Your task to perform on an android device: Go to Reddit.com Image 0: 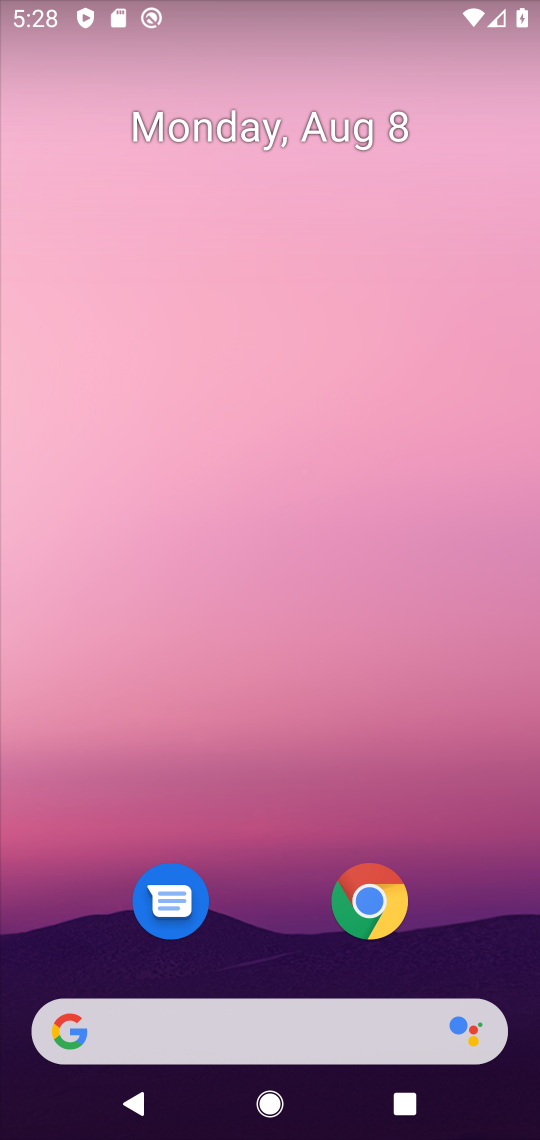
Step 0: click (381, 895)
Your task to perform on an android device: Go to Reddit.com Image 1: 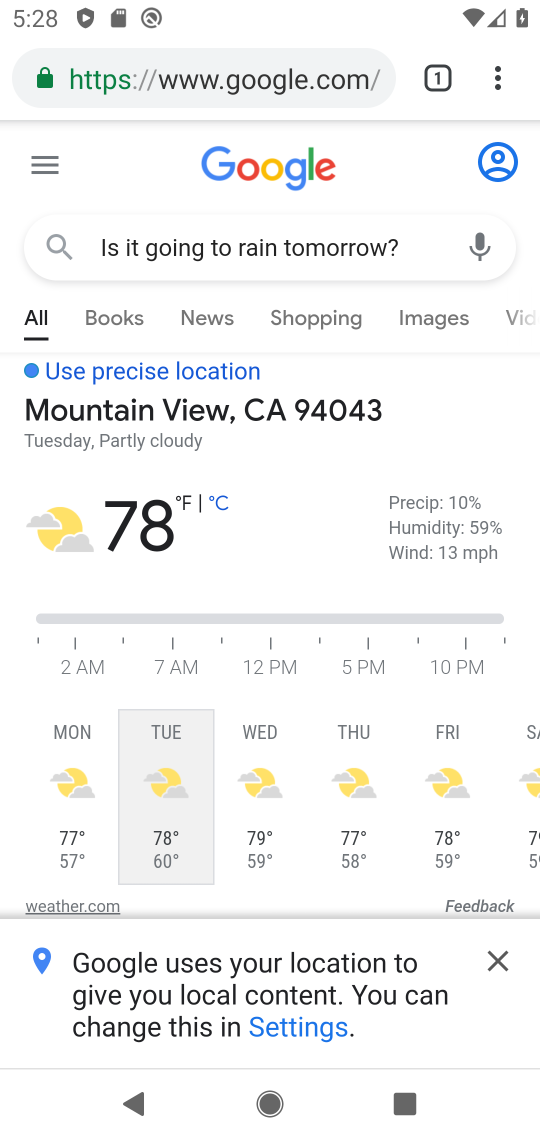
Step 1: click (210, 81)
Your task to perform on an android device: Go to Reddit.com Image 2: 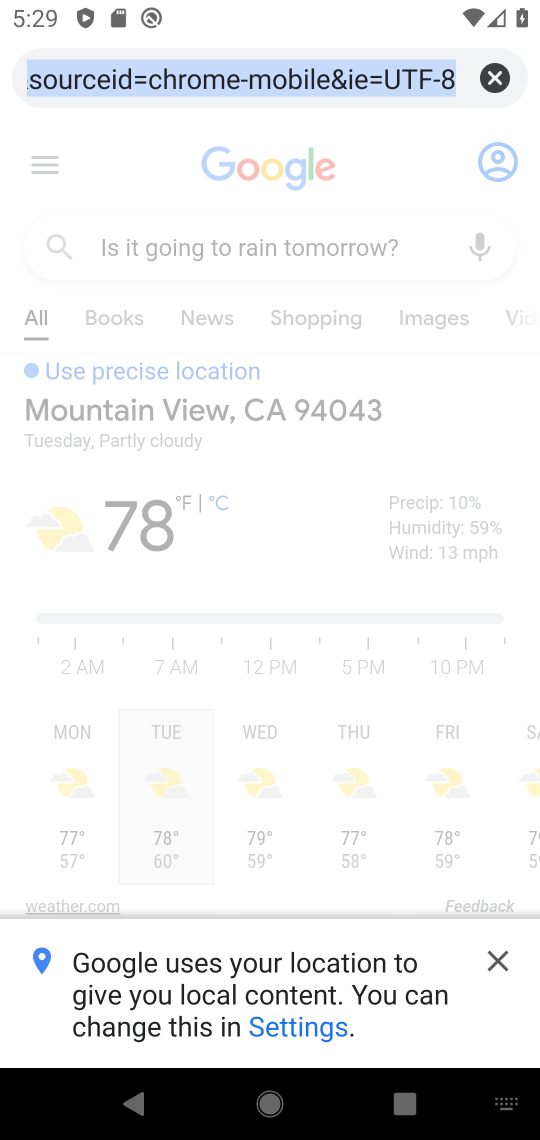
Step 2: type "Reddit.com"
Your task to perform on an android device: Go to Reddit.com Image 3: 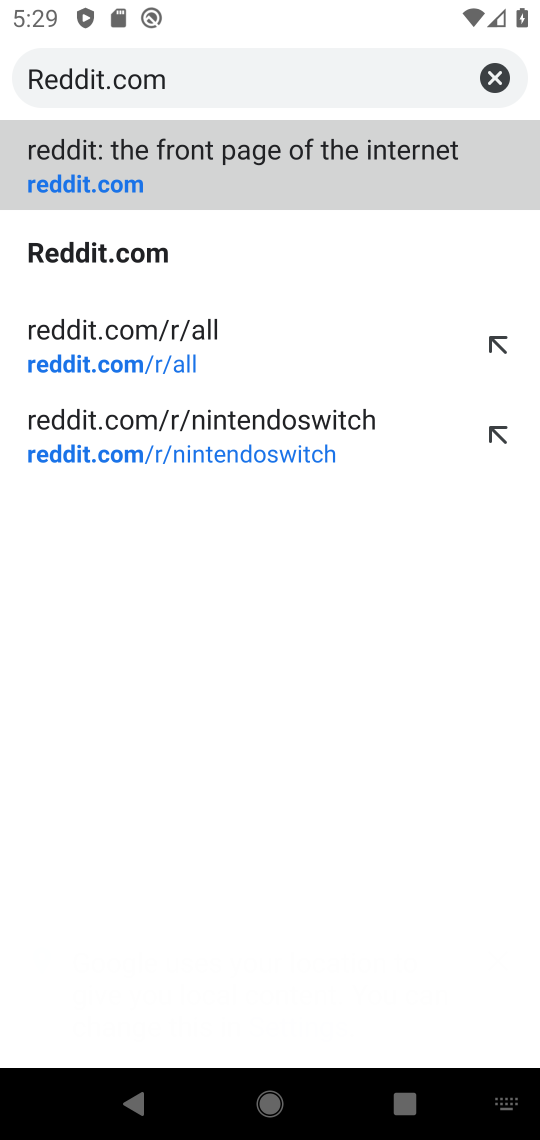
Step 3: click (338, 159)
Your task to perform on an android device: Go to Reddit.com Image 4: 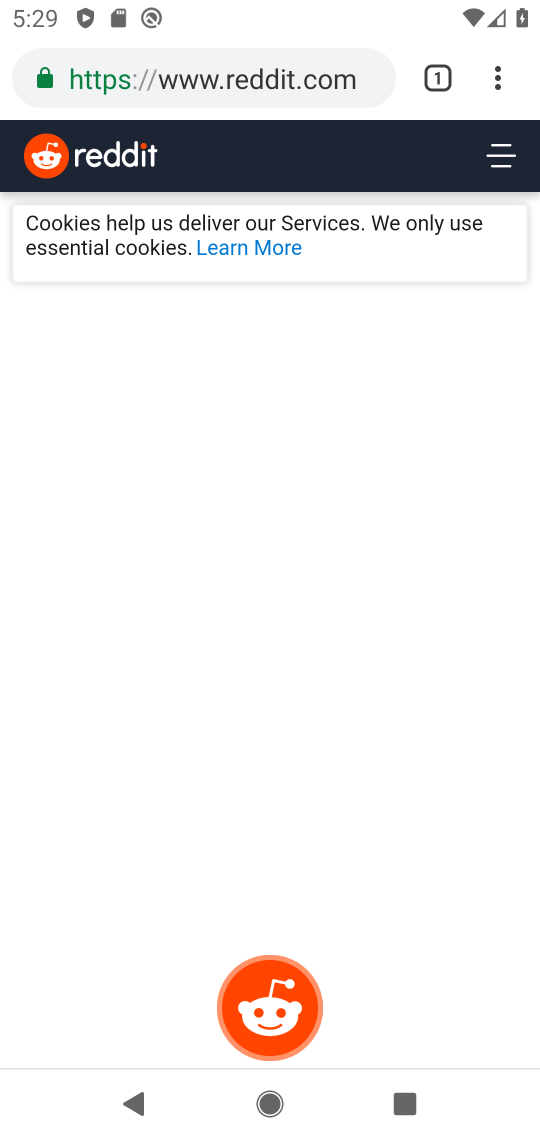
Step 4: task complete